Your task to perform on an android device: set the timer Image 0: 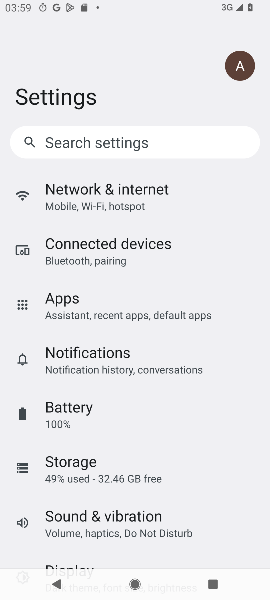
Step 0: press home button
Your task to perform on an android device: set the timer Image 1: 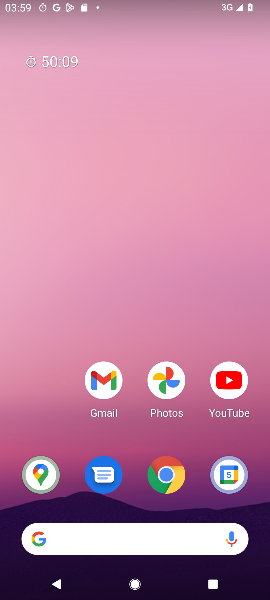
Step 1: drag from (56, 400) to (64, 197)
Your task to perform on an android device: set the timer Image 2: 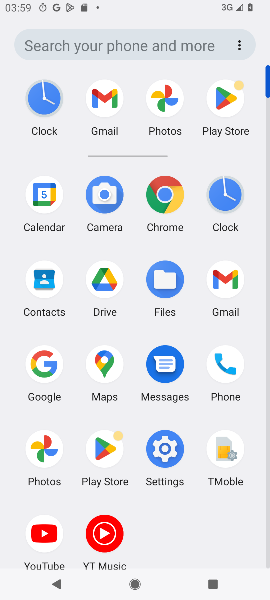
Step 2: click (222, 192)
Your task to perform on an android device: set the timer Image 3: 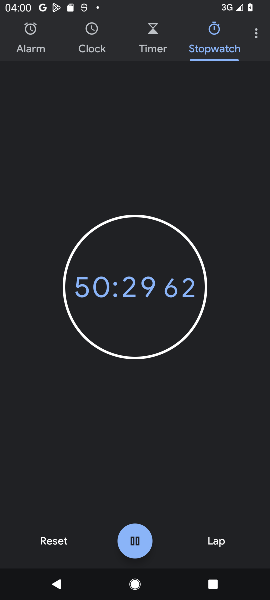
Step 3: click (154, 41)
Your task to perform on an android device: set the timer Image 4: 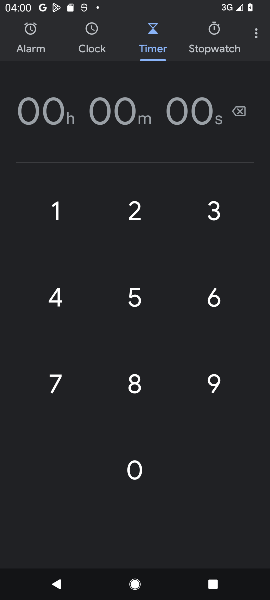
Step 4: click (131, 297)
Your task to perform on an android device: set the timer Image 5: 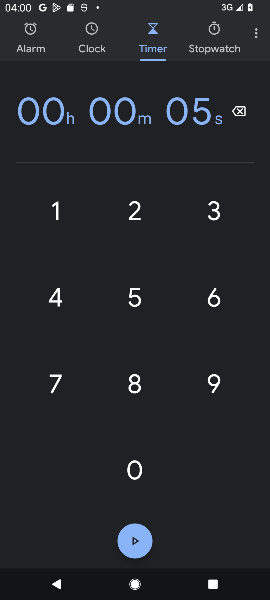
Step 5: task complete